Your task to perform on an android device: see creations saved in the google photos Image 0: 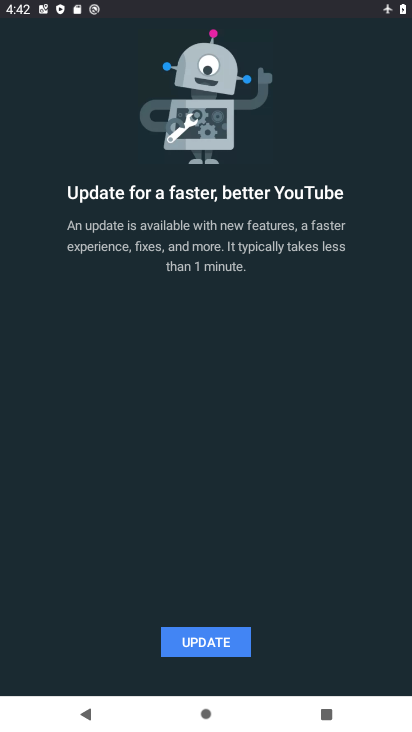
Step 0: press home button
Your task to perform on an android device: see creations saved in the google photos Image 1: 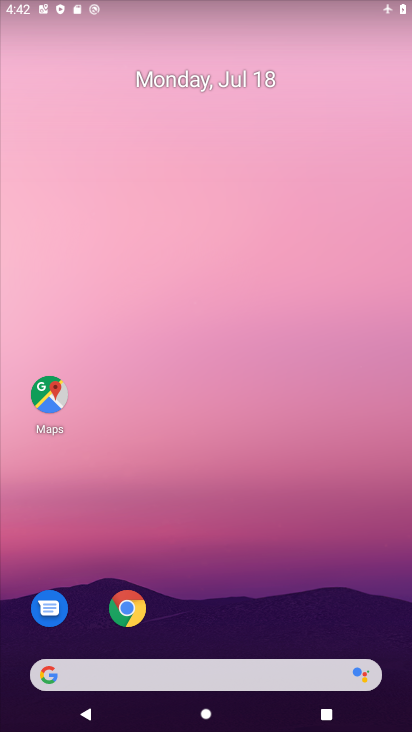
Step 1: drag from (215, 602) to (246, 142)
Your task to perform on an android device: see creations saved in the google photos Image 2: 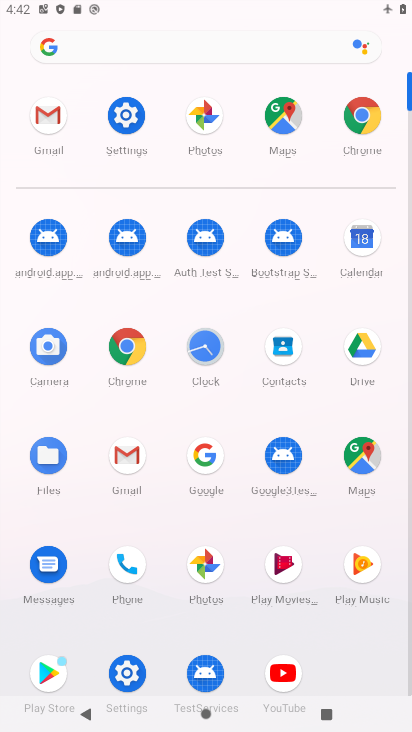
Step 2: click (202, 563)
Your task to perform on an android device: see creations saved in the google photos Image 3: 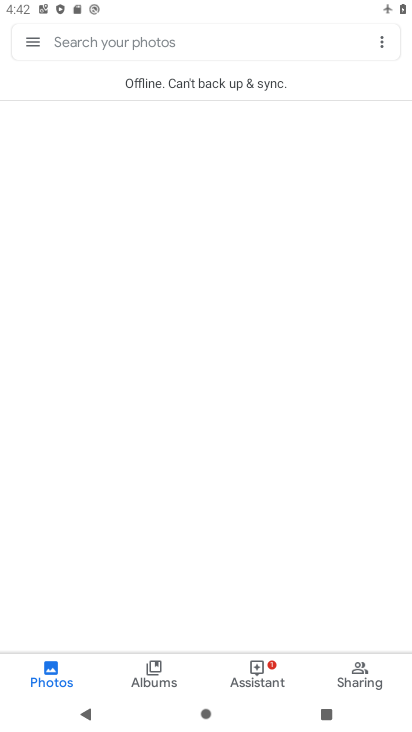
Step 3: click (281, 681)
Your task to perform on an android device: see creations saved in the google photos Image 4: 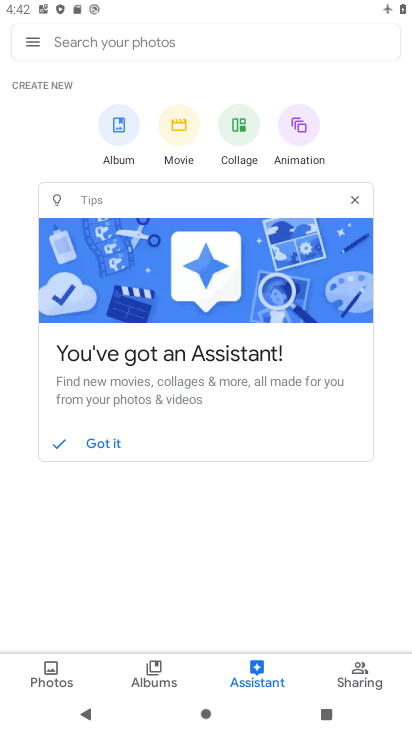
Step 4: click (373, 696)
Your task to perform on an android device: see creations saved in the google photos Image 5: 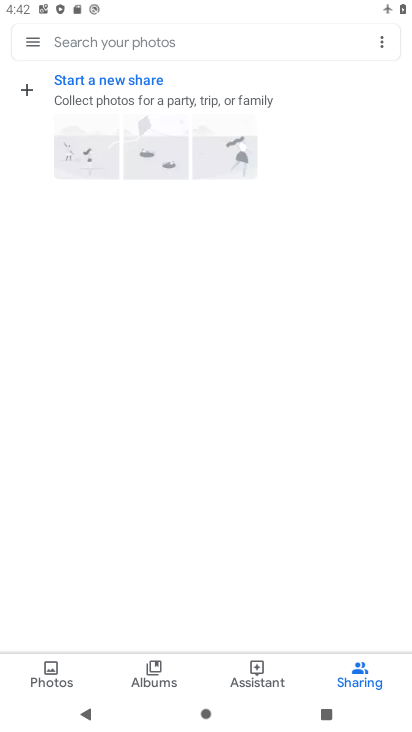
Step 5: click (175, 680)
Your task to perform on an android device: see creations saved in the google photos Image 6: 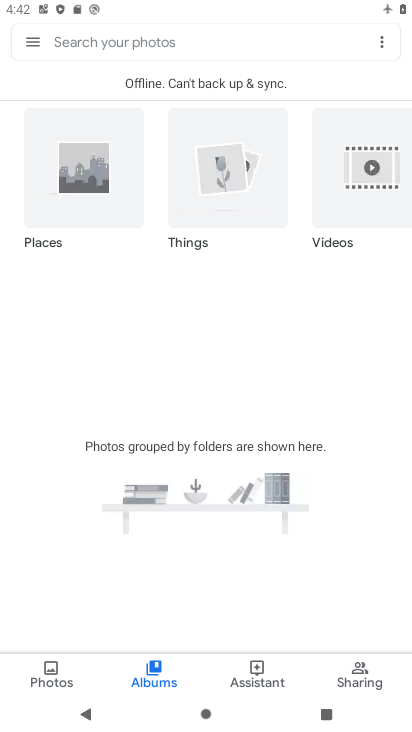
Step 6: task complete